Your task to perform on an android device: Go to Android settings Image 0: 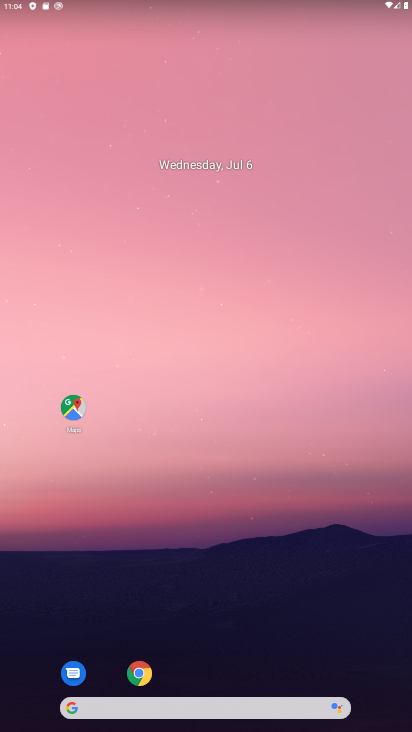
Step 0: drag from (239, 621) to (239, 134)
Your task to perform on an android device: Go to Android settings Image 1: 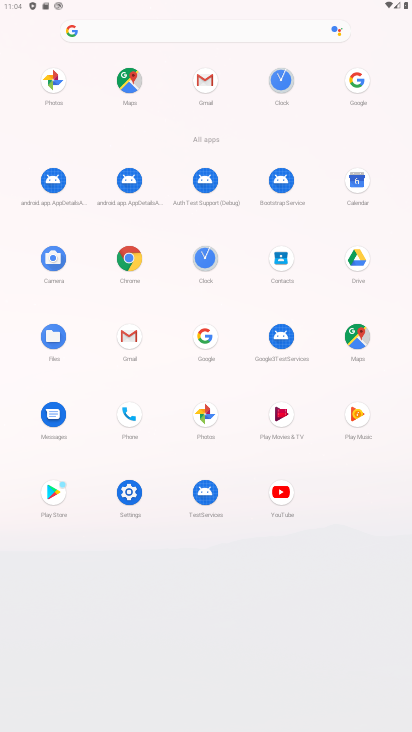
Step 1: click (138, 512)
Your task to perform on an android device: Go to Android settings Image 2: 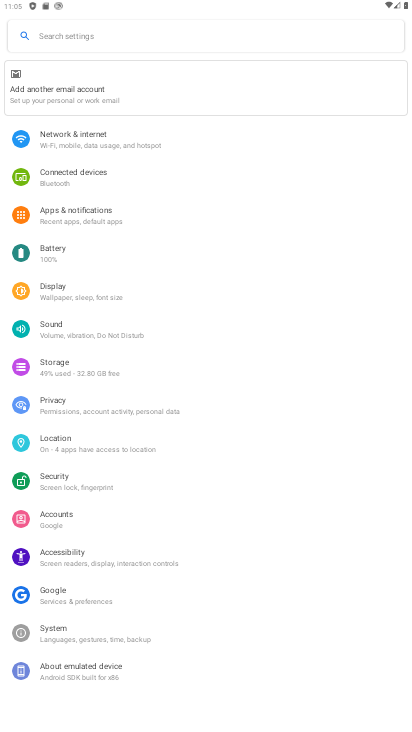
Step 2: drag from (107, 587) to (138, 263)
Your task to perform on an android device: Go to Android settings Image 3: 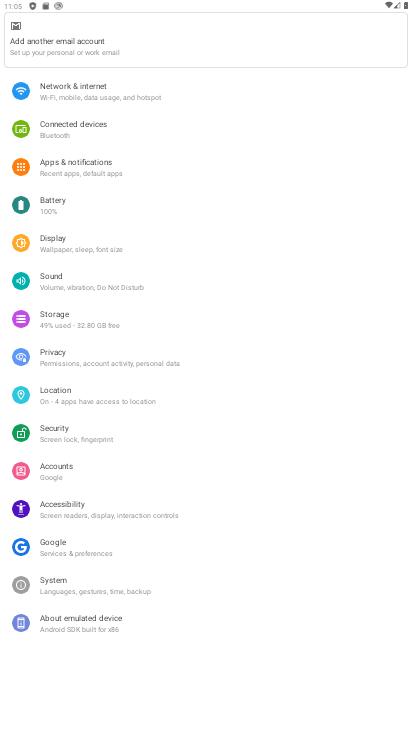
Step 3: click (88, 621)
Your task to perform on an android device: Go to Android settings Image 4: 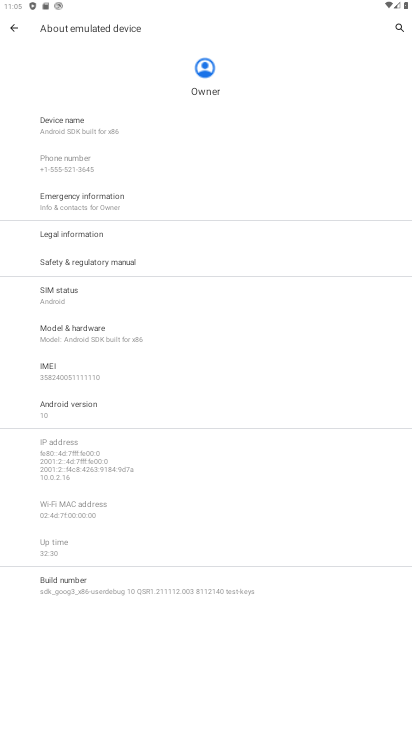
Step 4: click (87, 421)
Your task to perform on an android device: Go to Android settings Image 5: 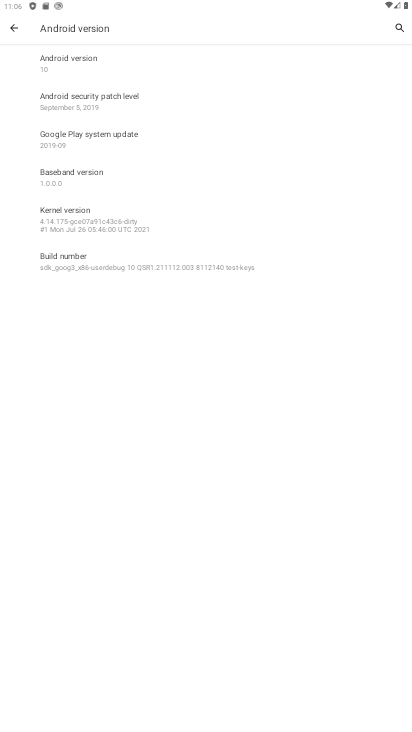
Step 5: task complete